Your task to perform on an android device: Open privacy settings Image 0: 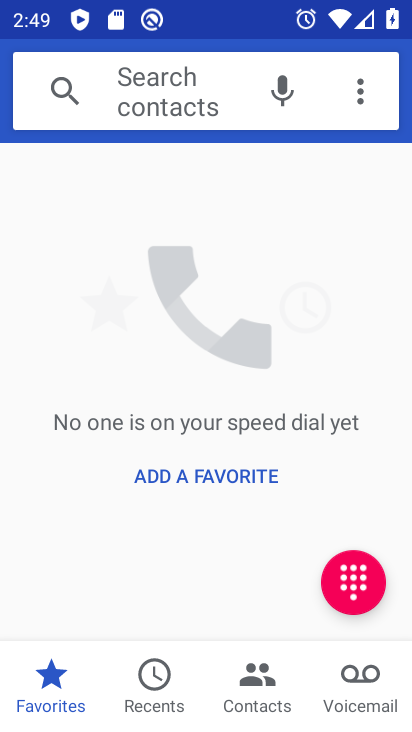
Step 0: press home button
Your task to perform on an android device: Open privacy settings Image 1: 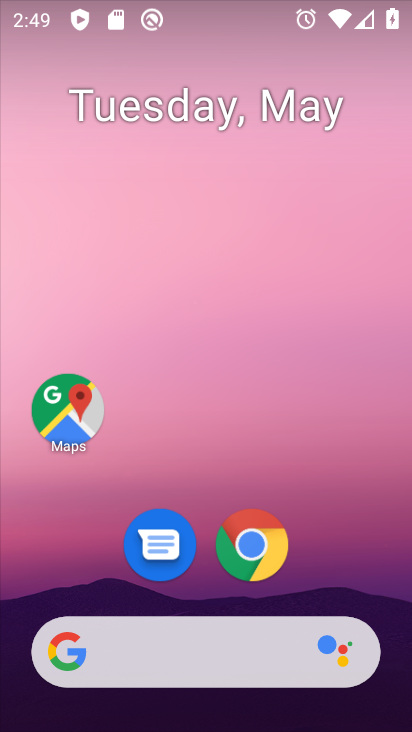
Step 1: drag from (206, 625) to (234, 42)
Your task to perform on an android device: Open privacy settings Image 2: 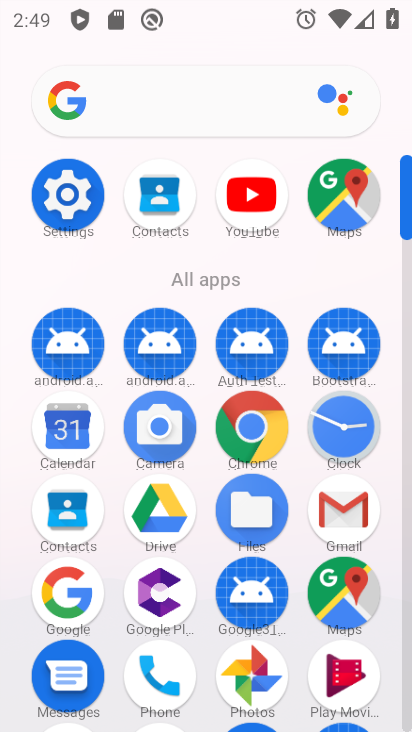
Step 2: click (71, 181)
Your task to perform on an android device: Open privacy settings Image 3: 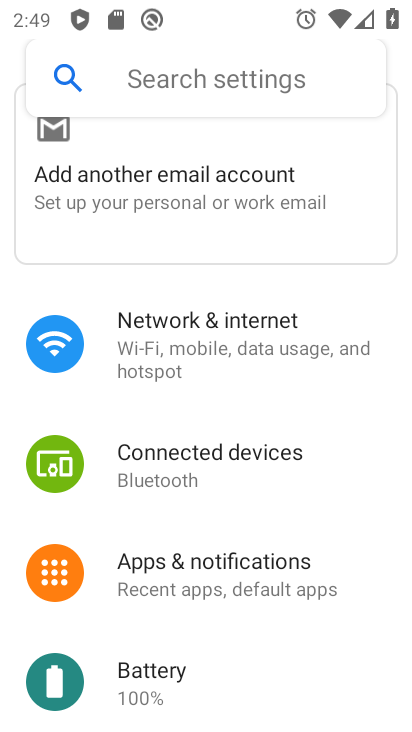
Step 3: drag from (182, 646) to (143, 76)
Your task to perform on an android device: Open privacy settings Image 4: 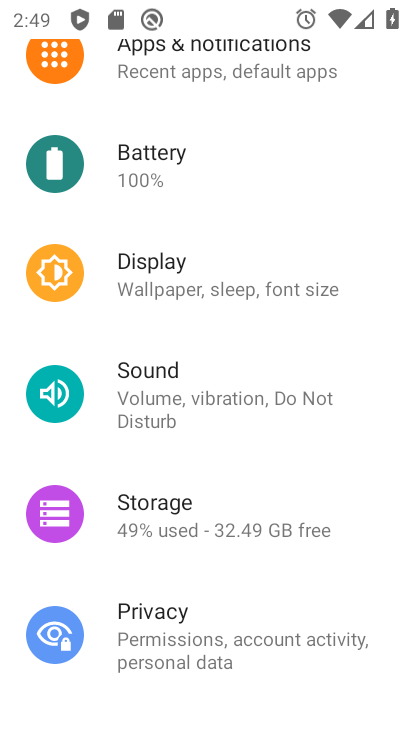
Step 4: click (175, 609)
Your task to perform on an android device: Open privacy settings Image 5: 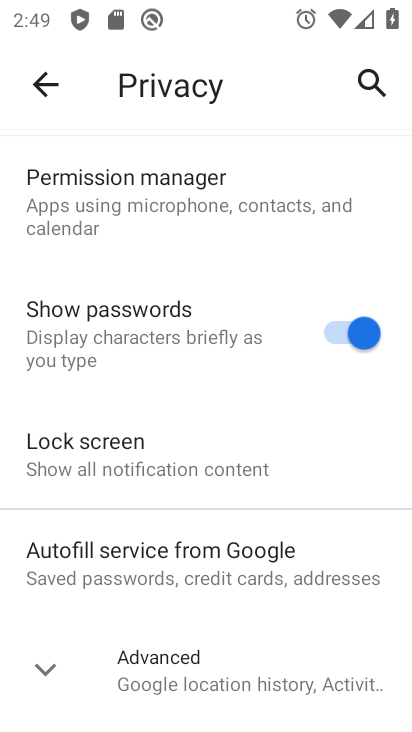
Step 5: task complete